Your task to perform on an android device: Open settings Image 0: 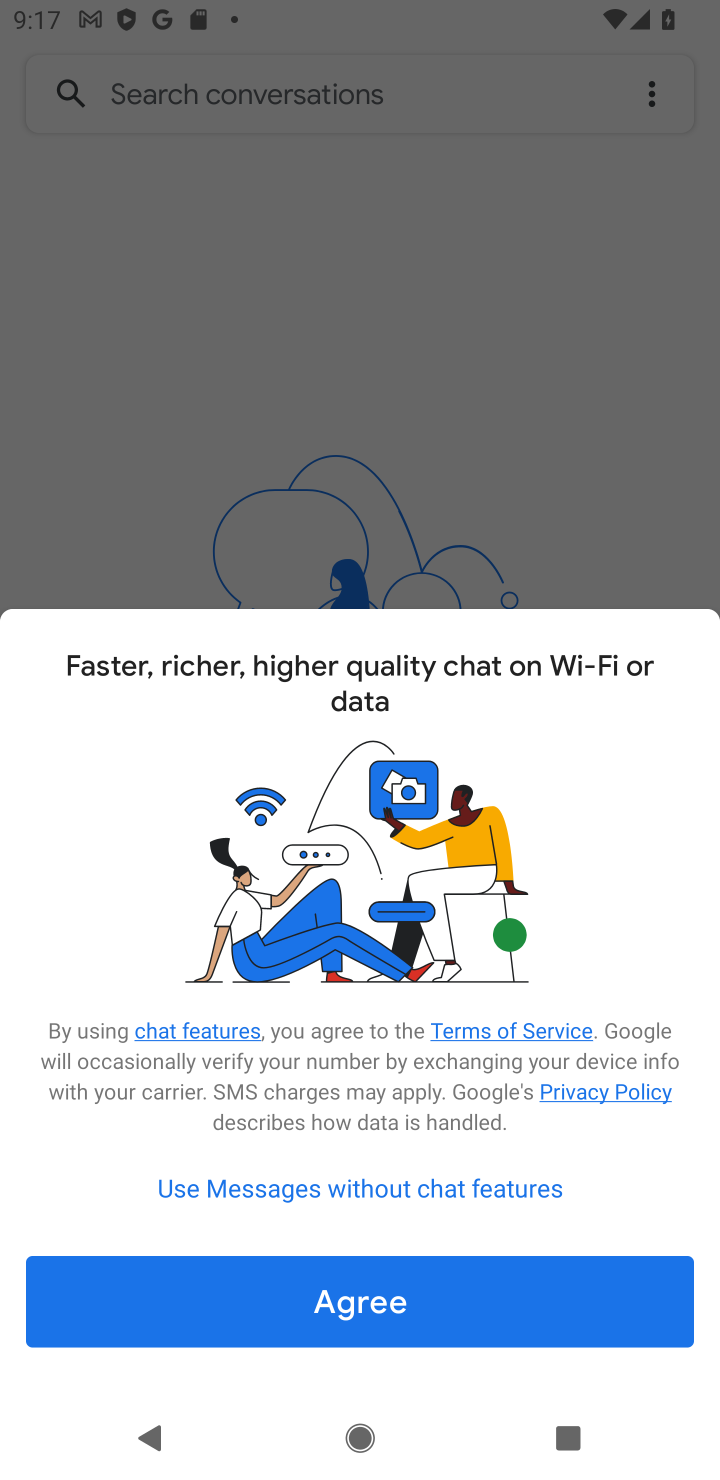
Step 0: press home button
Your task to perform on an android device: Open settings Image 1: 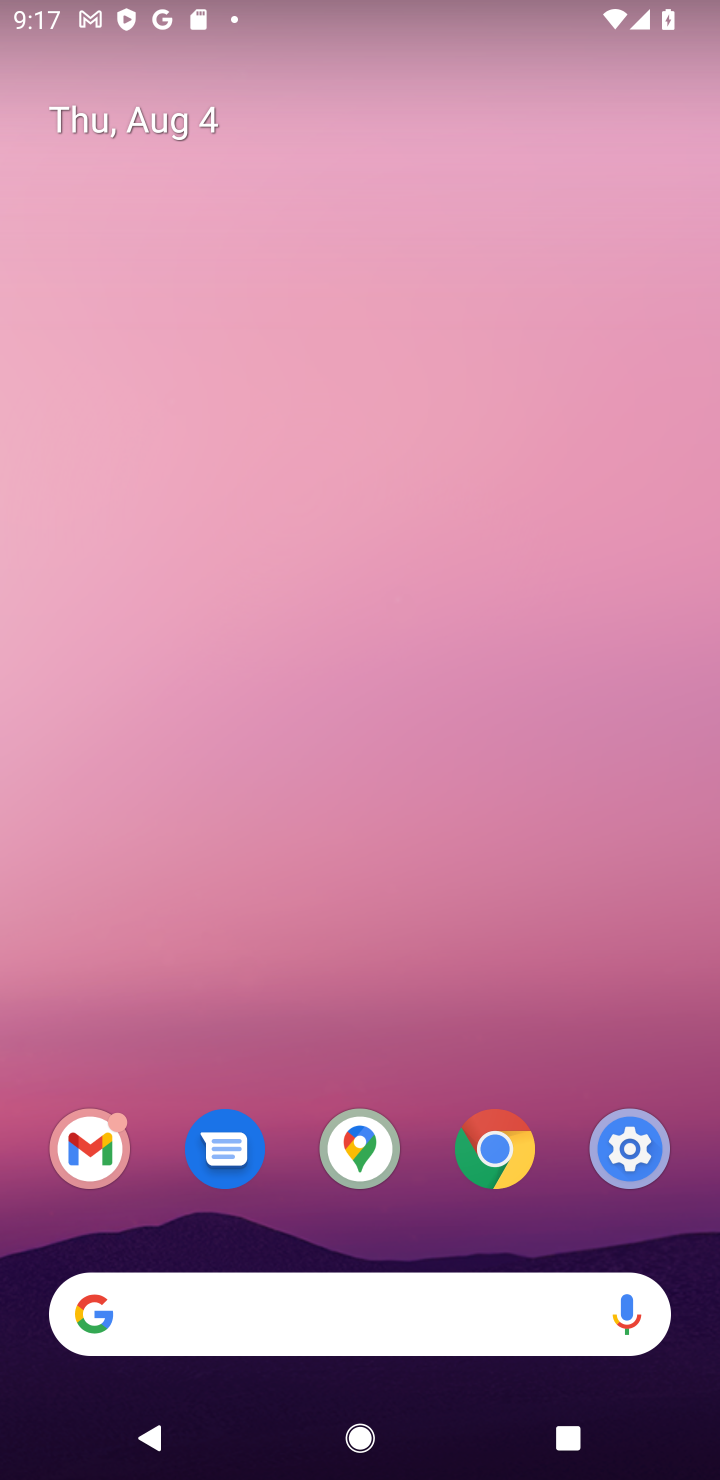
Step 1: click (627, 1151)
Your task to perform on an android device: Open settings Image 2: 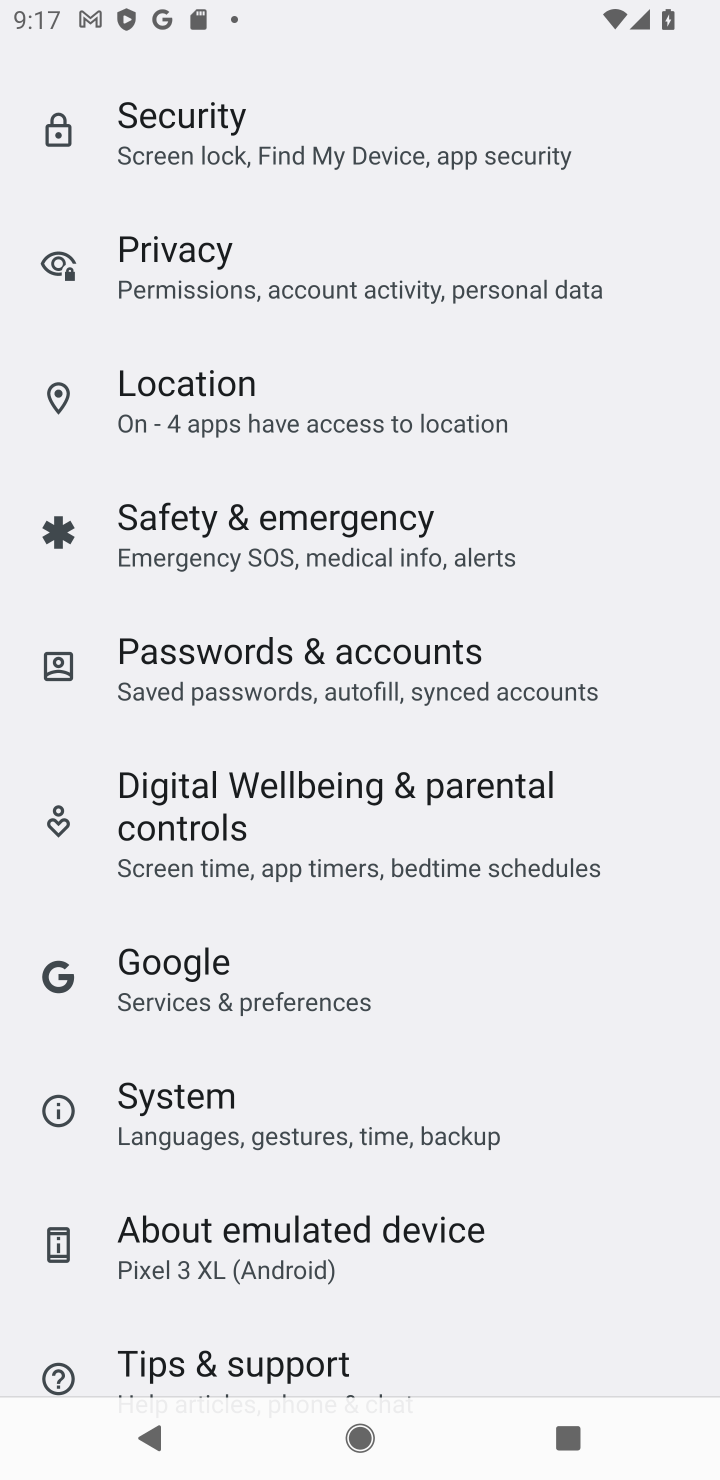
Step 2: task complete